Your task to perform on an android device: Go to network settings Image 0: 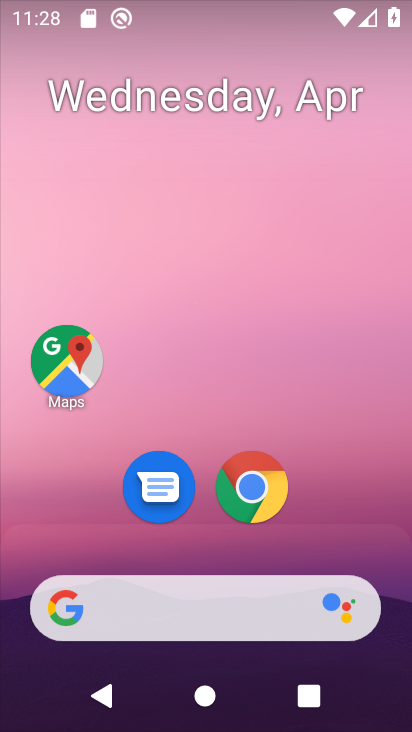
Step 0: drag from (404, 561) to (406, 79)
Your task to perform on an android device: Go to network settings Image 1: 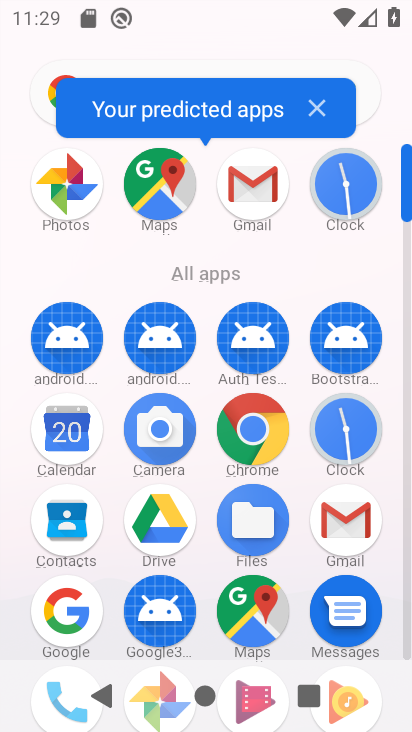
Step 1: click (410, 536)
Your task to perform on an android device: Go to network settings Image 2: 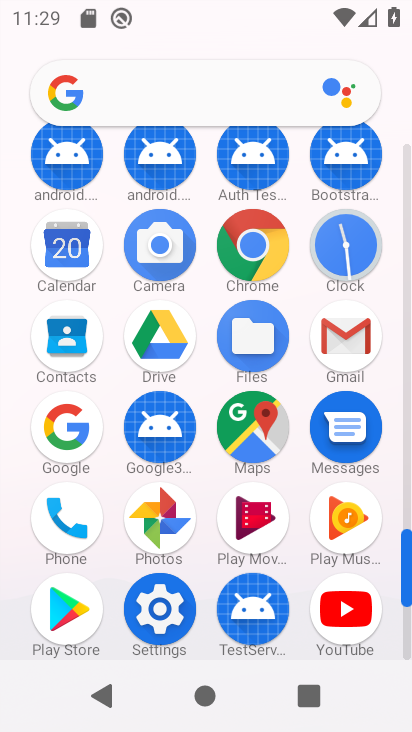
Step 2: click (159, 615)
Your task to perform on an android device: Go to network settings Image 3: 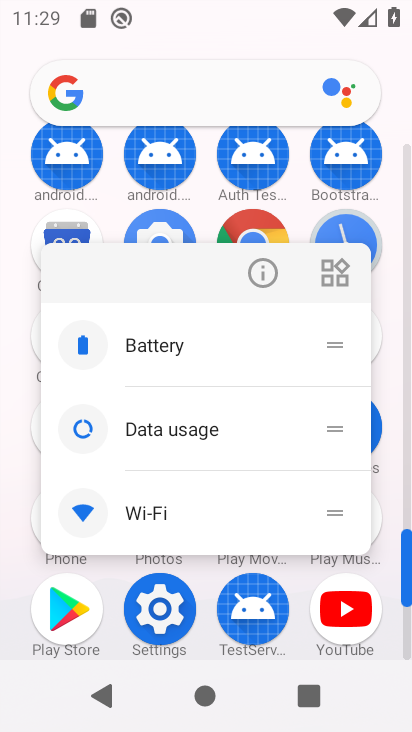
Step 3: click (159, 615)
Your task to perform on an android device: Go to network settings Image 4: 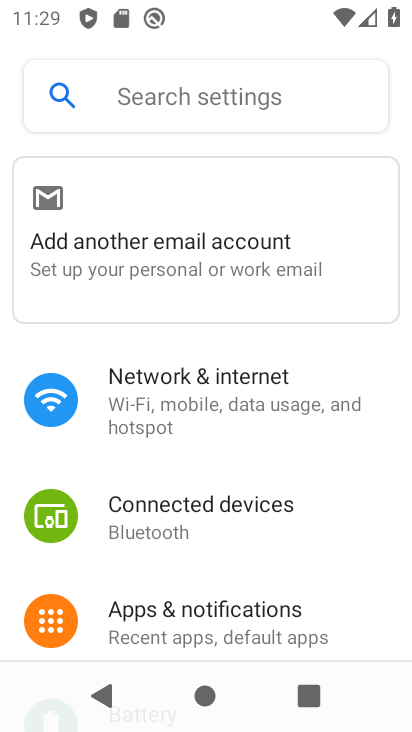
Step 4: click (181, 392)
Your task to perform on an android device: Go to network settings Image 5: 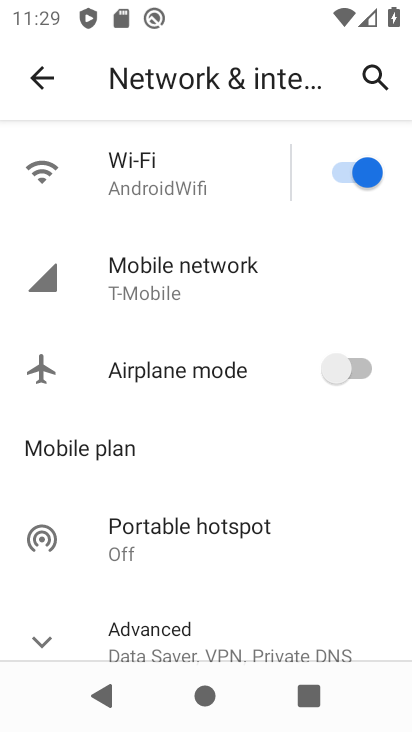
Step 5: click (171, 287)
Your task to perform on an android device: Go to network settings Image 6: 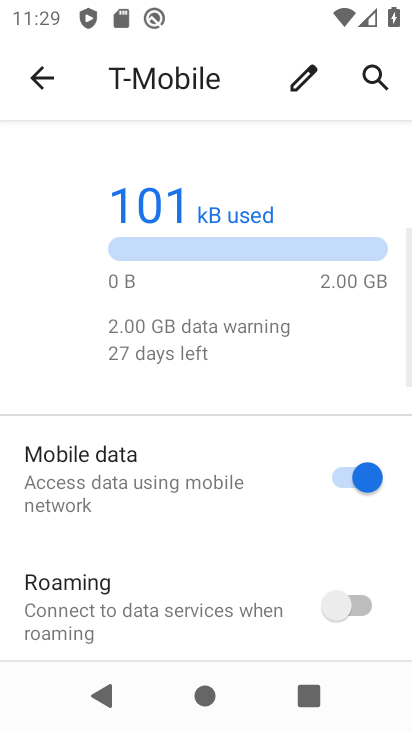
Step 6: drag from (168, 526) to (173, 160)
Your task to perform on an android device: Go to network settings Image 7: 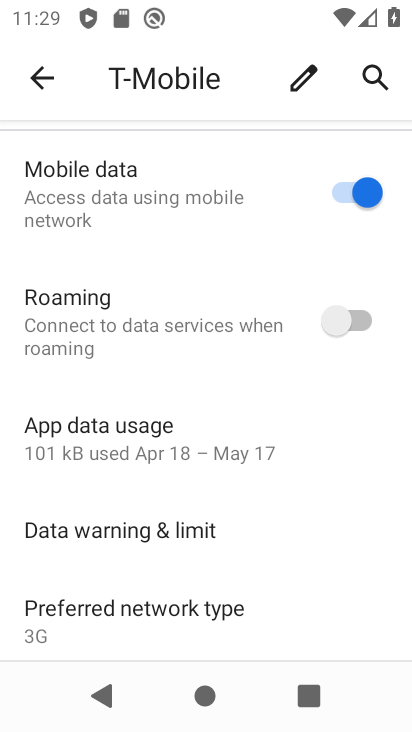
Step 7: drag from (201, 429) to (201, 212)
Your task to perform on an android device: Go to network settings Image 8: 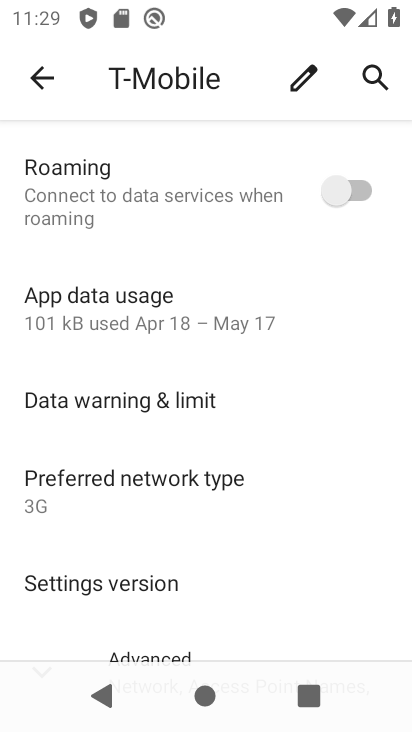
Step 8: drag from (206, 544) to (217, 298)
Your task to perform on an android device: Go to network settings Image 9: 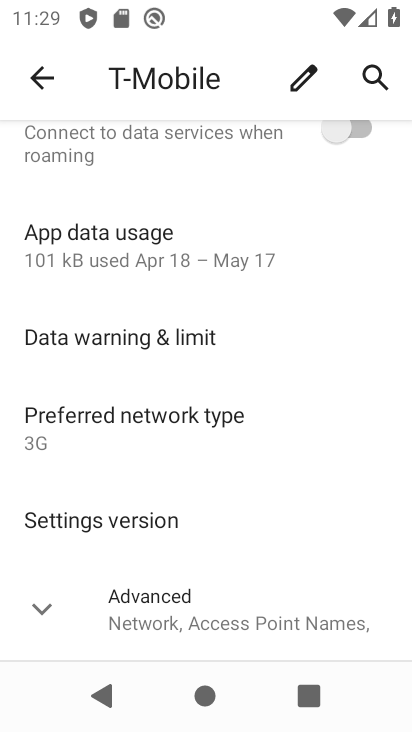
Step 9: click (45, 616)
Your task to perform on an android device: Go to network settings Image 10: 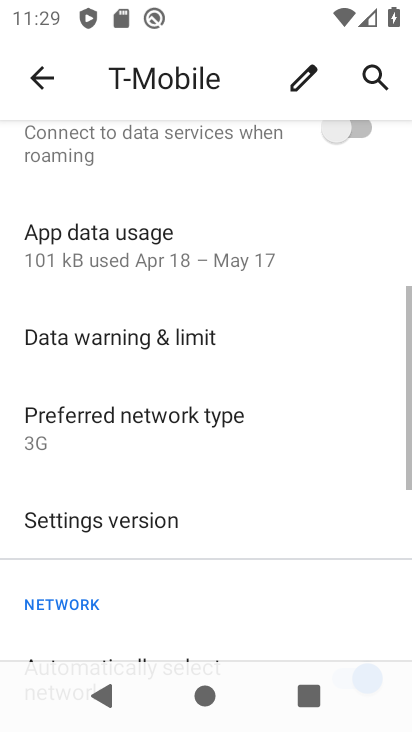
Step 10: task complete